Your task to perform on an android device: Open settings Image 0: 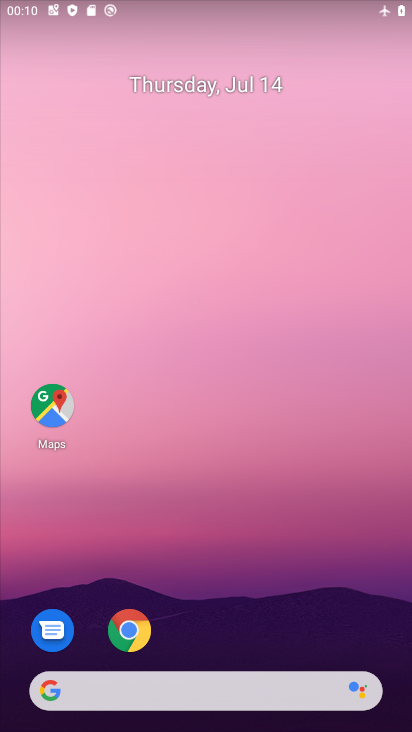
Step 0: drag from (341, 599) to (367, 92)
Your task to perform on an android device: Open settings Image 1: 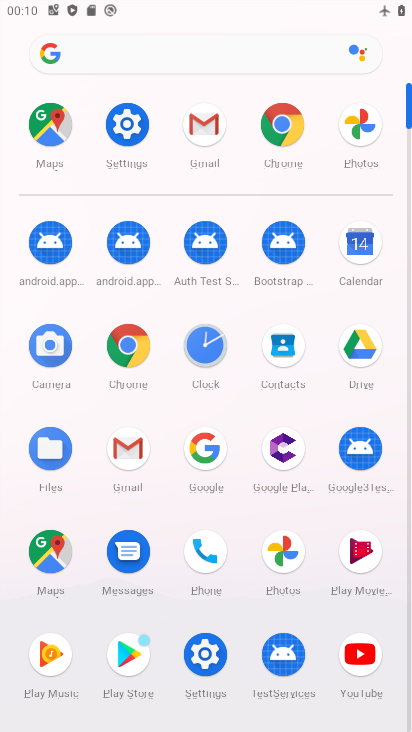
Step 1: click (129, 128)
Your task to perform on an android device: Open settings Image 2: 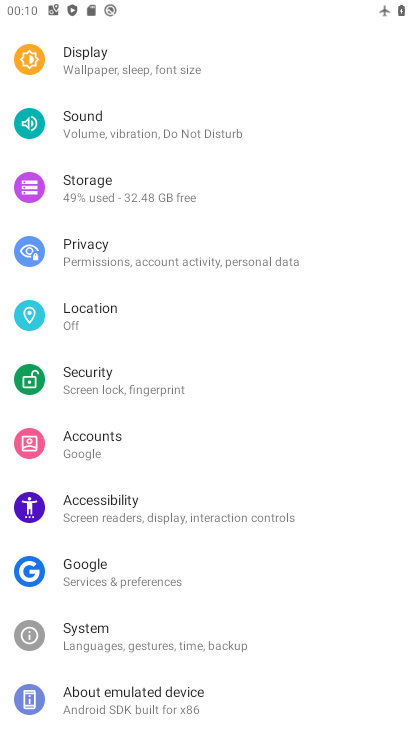
Step 2: task complete